Your task to perform on an android device: add a contact Image 0: 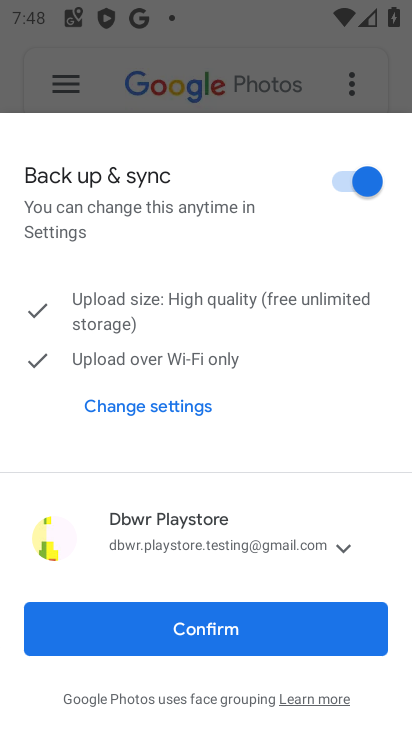
Step 0: press home button
Your task to perform on an android device: add a contact Image 1: 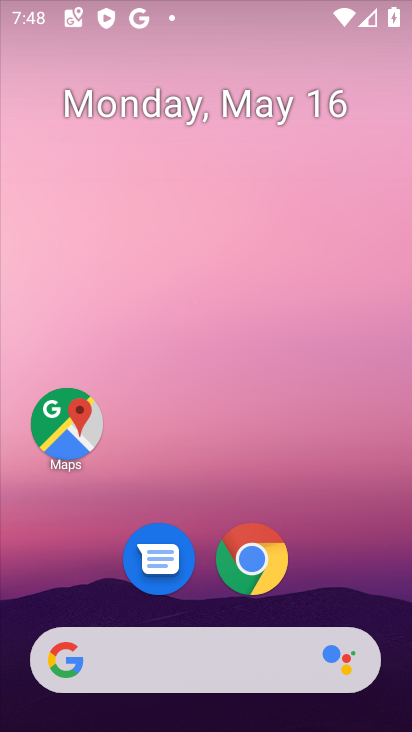
Step 1: drag from (332, 568) to (254, 196)
Your task to perform on an android device: add a contact Image 2: 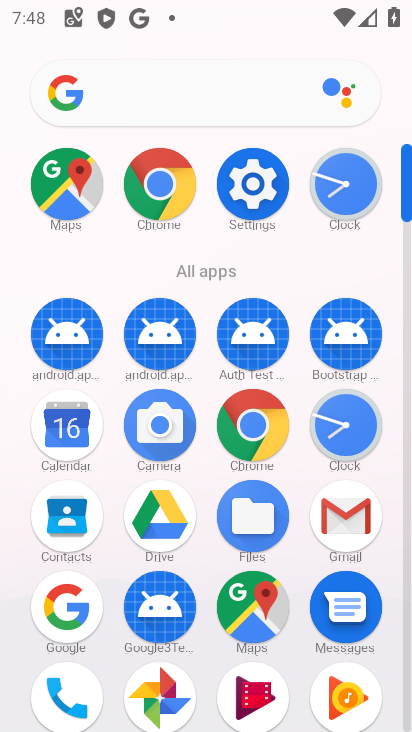
Step 2: drag from (195, 618) to (209, 371)
Your task to perform on an android device: add a contact Image 3: 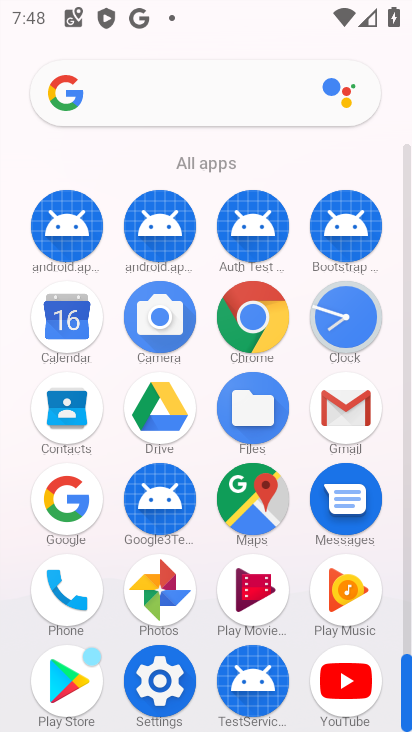
Step 3: click (66, 416)
Your task to perform on an android device: add a contact Image 4: 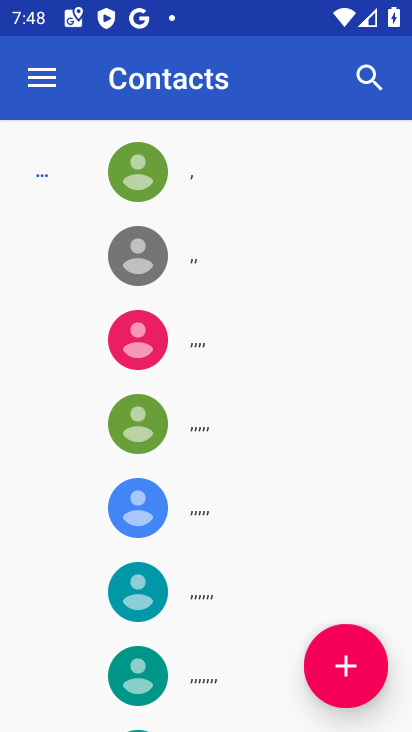
Step 4: click (340, 669)
Your task to perform on an android device: add a contact Image 5: 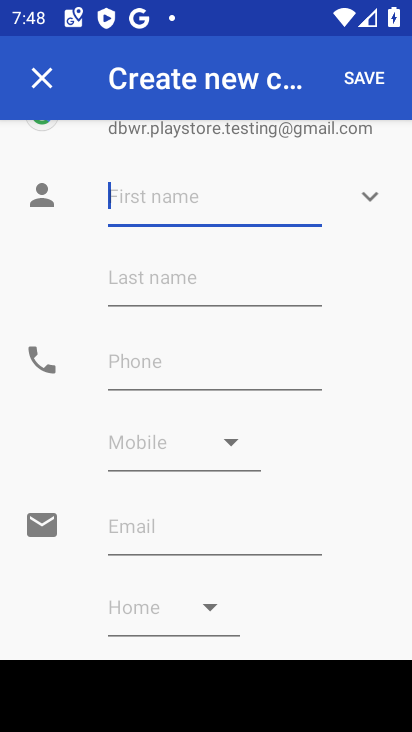
Step 5: type "nitish"
Your task to perform on an android device: add a contact Image 6: 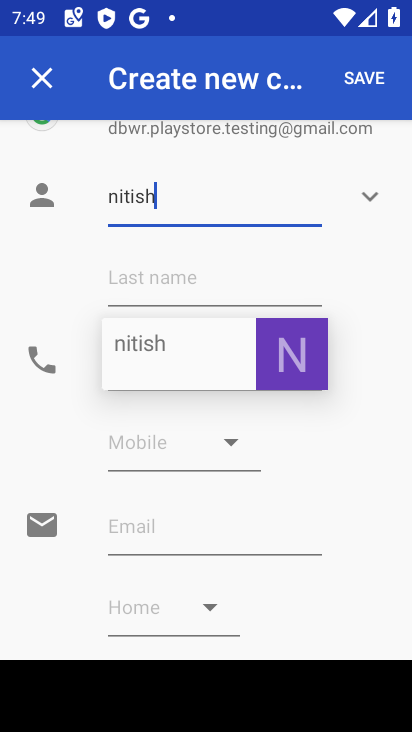
Step 6: click (363, 381)
Your task to perform on an android device: add a contact Image 7: 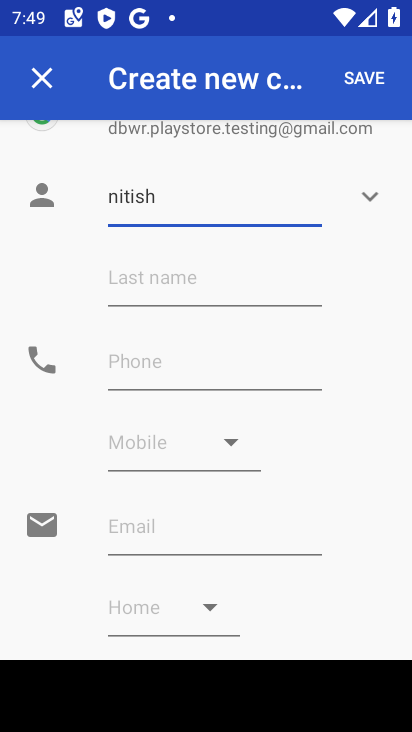
Step 7: click (118, 366)
Your task to perform on an android device: add a contact Image 8: 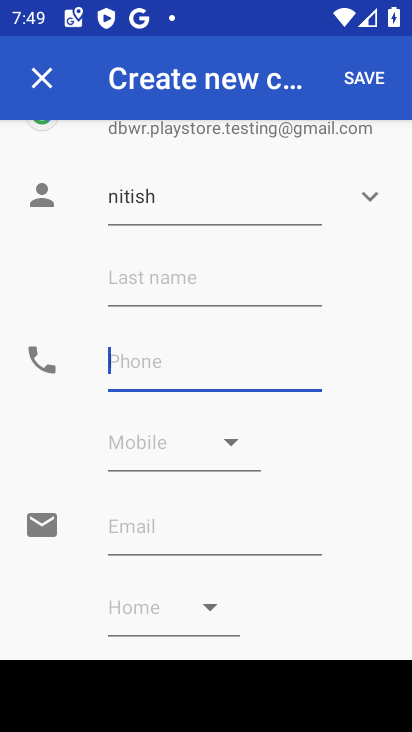
Step 8: type "39200984038"
Your task to perform on an android device: add a contact Image 9: 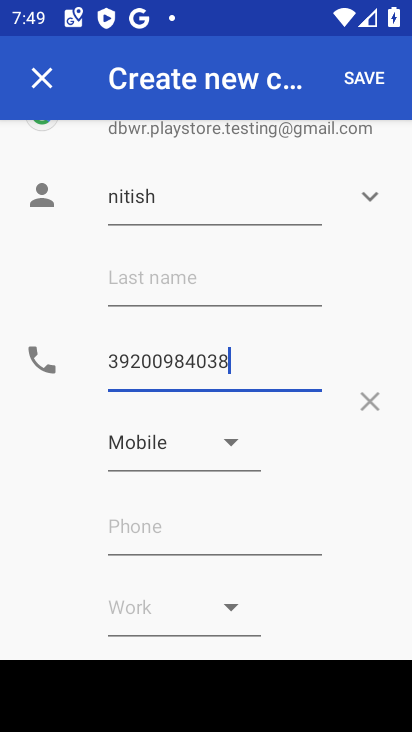
Step 9: click (361, 74)
Your task to perform on an android device: add a contact Image 10: 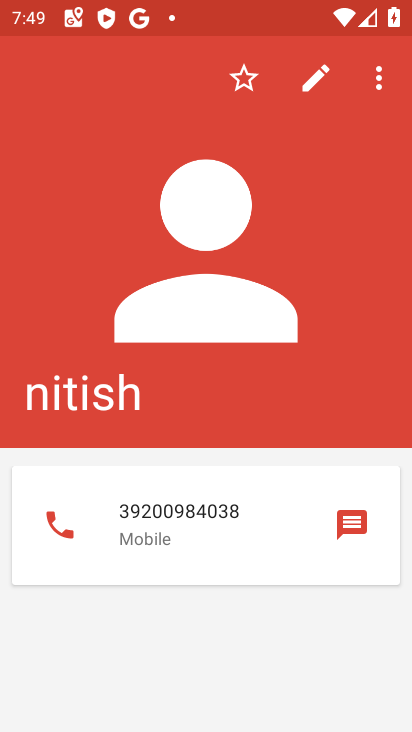
Step 10: task complete